Your task to perform on an android device: Go to ESPN.com Image 0: 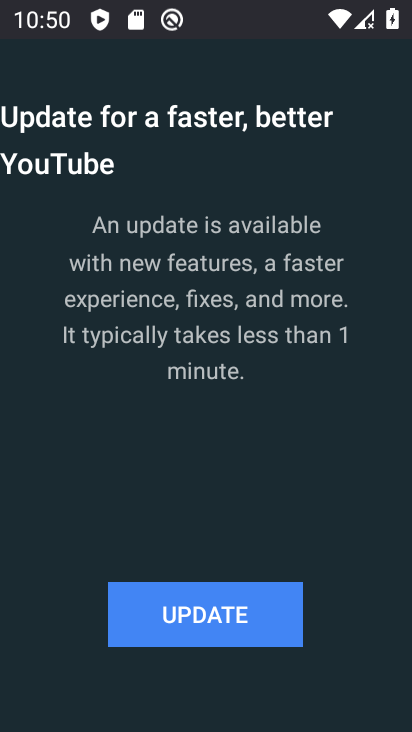
Step 0: press home button
Your task to perform on an android device: Go to ESPN.com Image 1: 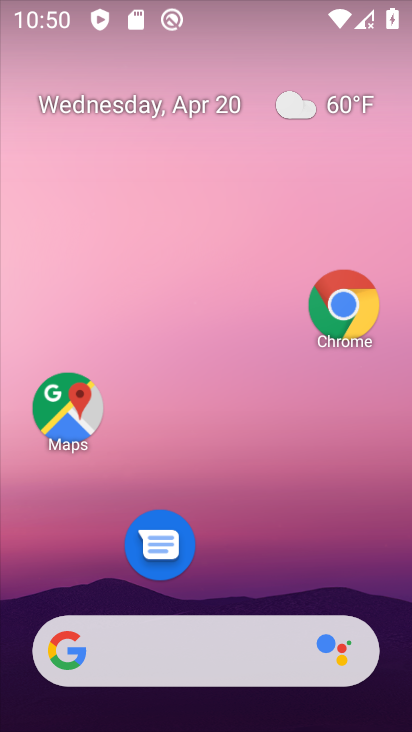
Step 1: drag from (137, 613) to (137, 354)
Your task to perform on an android device: Go to ESPN.com Image 2: 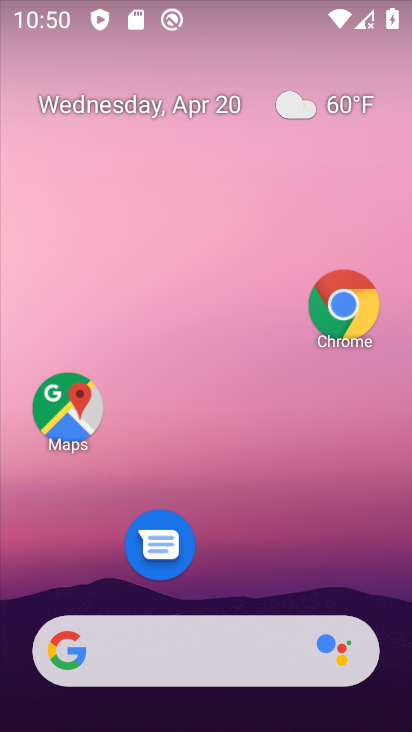
Step 2: click (360, 320)
Your task to perform on an android device: Go to ESPN.com Image 3: 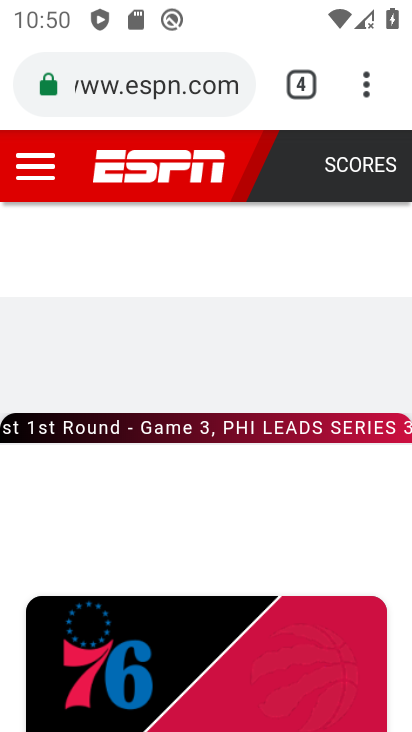
Step 3: task complete